Your task to perform on an android device: Go to battery settings Image 0: 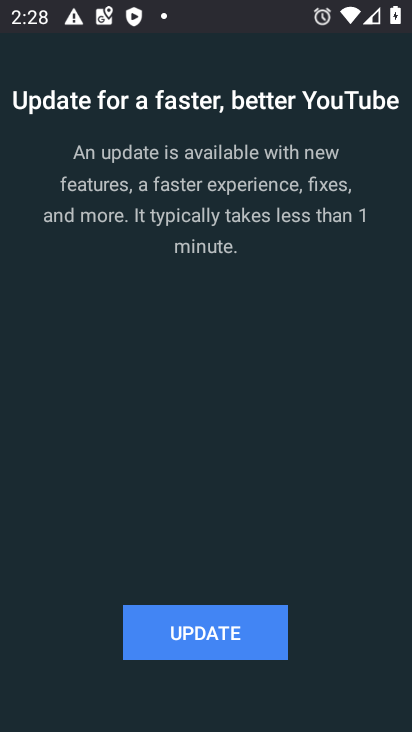
Step 0: press home button
Your task to perform on an android device: Go to battery settings Image 1: 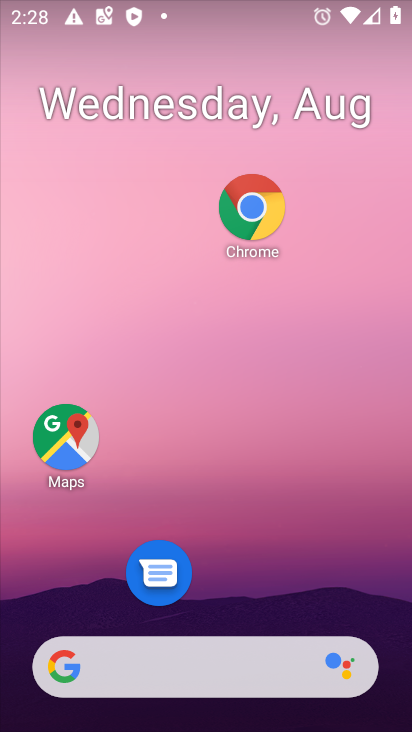
Step 1: drag from (247, 660) to (303, 113)
Your task to perform on an android device: Go to battery settings Image 2: 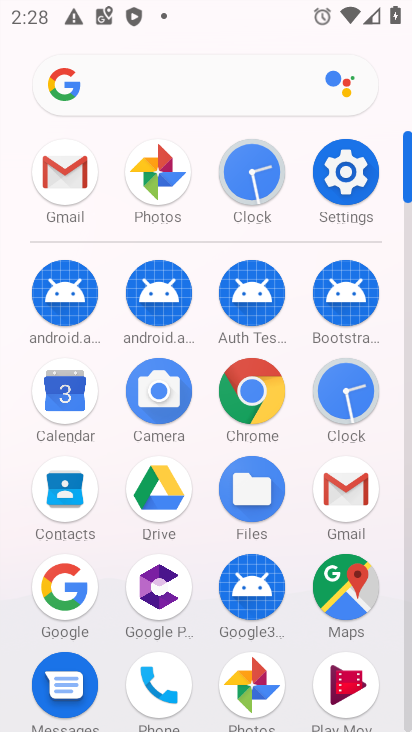
Step 2: click (345, 161)
Your task to perform on an android device: Go to battery settings Image 3: 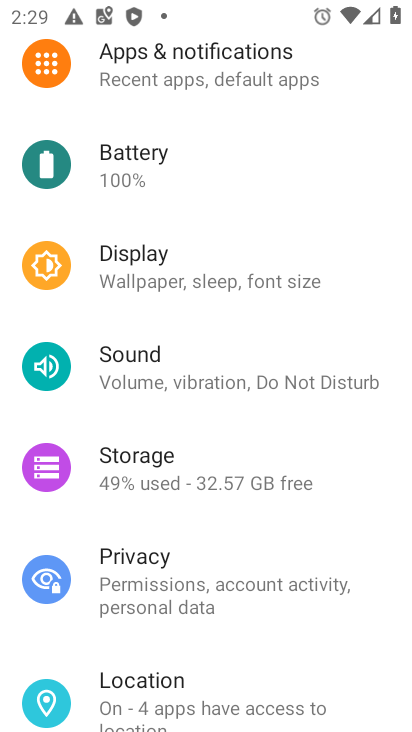
Step 3: click (167, 176)
Your task to perform on an android device: Go to battery settings Image 4: 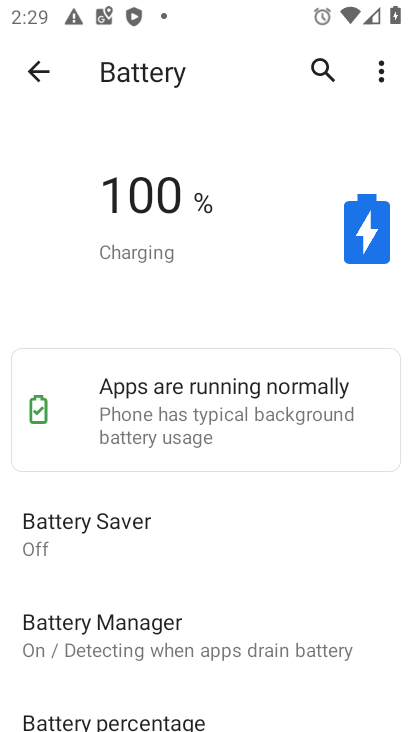
Step 4: task complete